Your task to perform on an android device: Open notification settings Image 0: 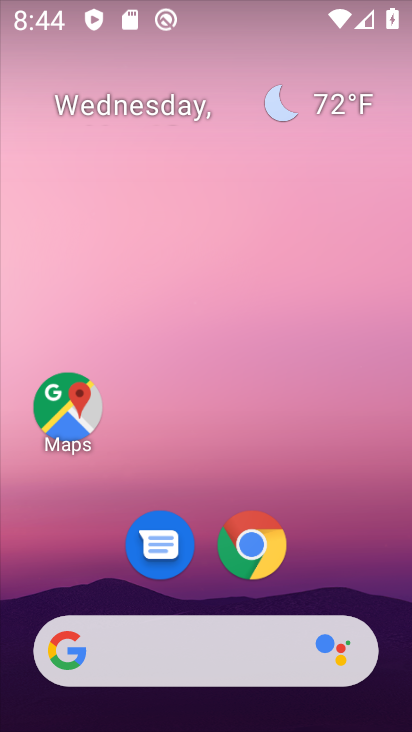
Step 0: drag from (316, 675) to (198, 209)
Your task to perform on an android device: Open notification settings Image 1: 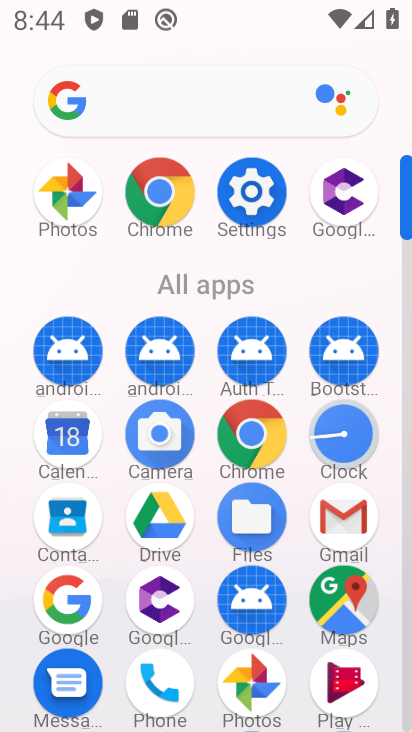
Step 1: click (254, 192)
Your task to perform on an android device: Open notification settings Image 2: 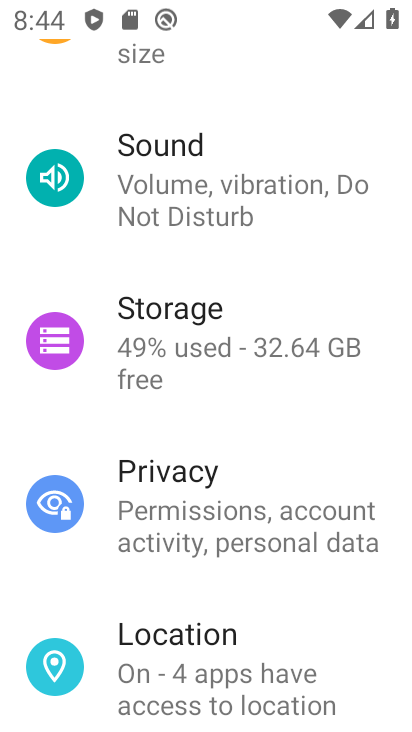
Step 2: click (190, 165)
Your task to perform on an android device: Open notification settings Image 3: 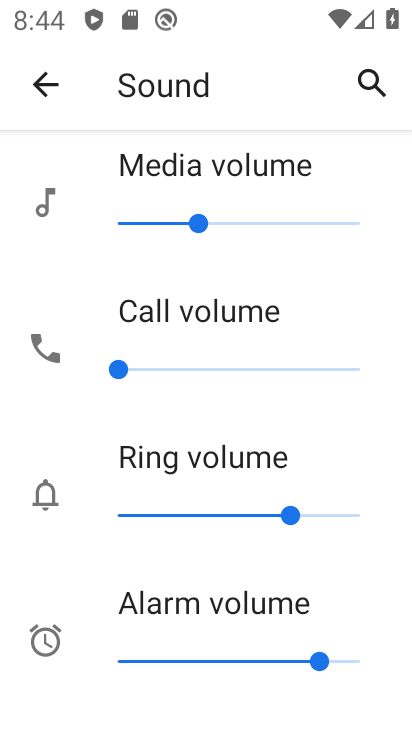
Step 3: click (163, 74)
Your task to perform on an android device: Open notification settings Image 4: 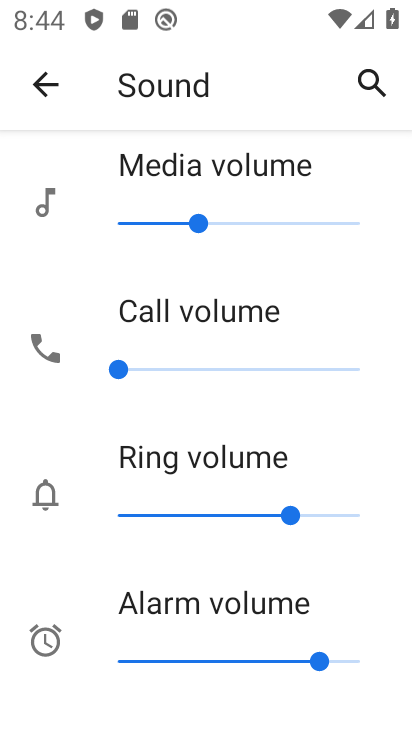
Step 4: click (182, 161)
Your task to perform on an android device: Open notification settings Image 5: 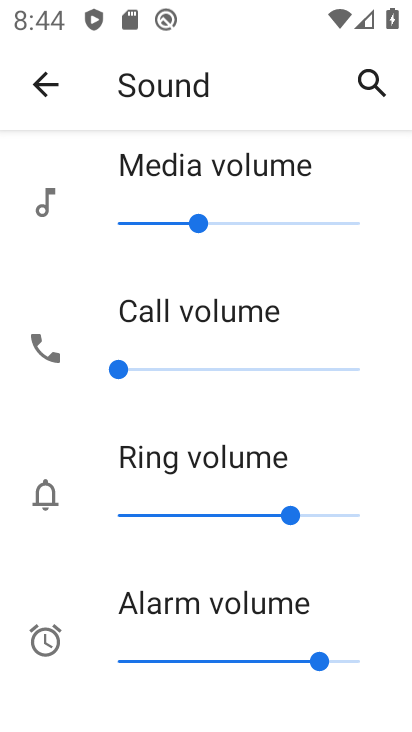
Step 5: click (191, 55)
Your task to perform on an android device: Open notification settings Image 6: 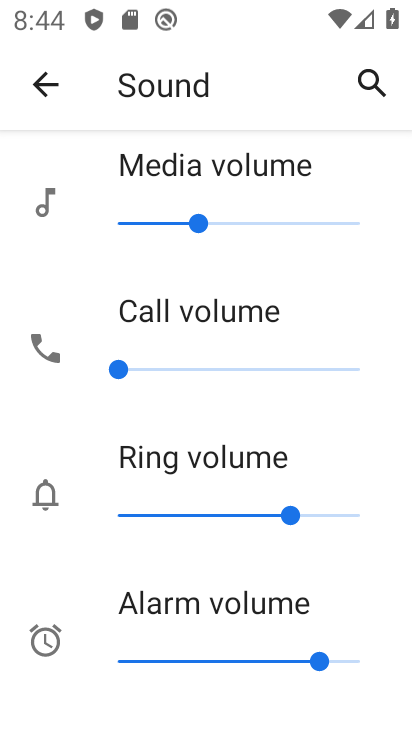
Step 6: click (179, 189)
Your task to perform on an android device: Open notification settings Image 7: 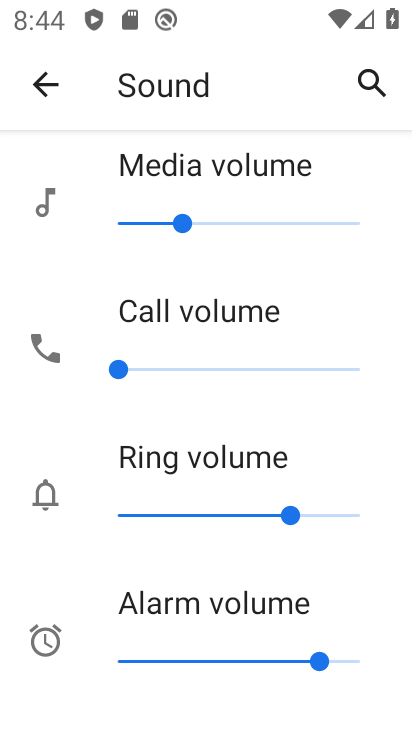
Step 7: click (38, 83)
Your task to perform on an android device: Open notification settings Image 8: 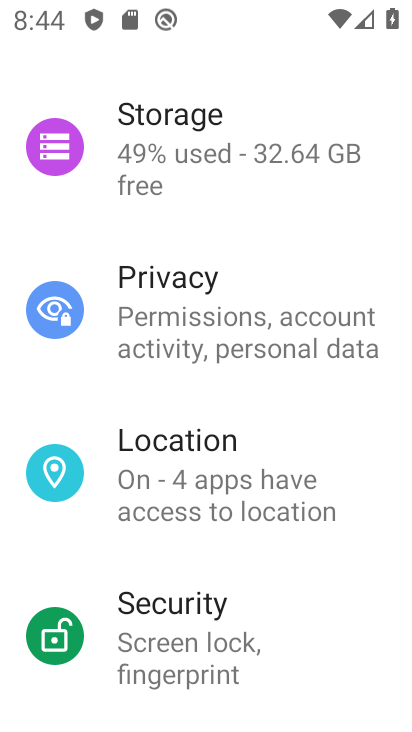
Step 8: click (43, 83)
Your task to perform on an android device: Open notification settings Image 9: 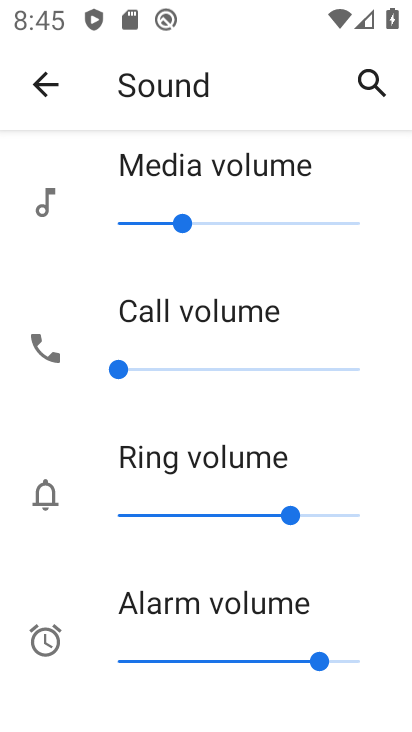
Step 9: click (44, 65)
Your task to perform on an android device: Open notification settings Image 10: 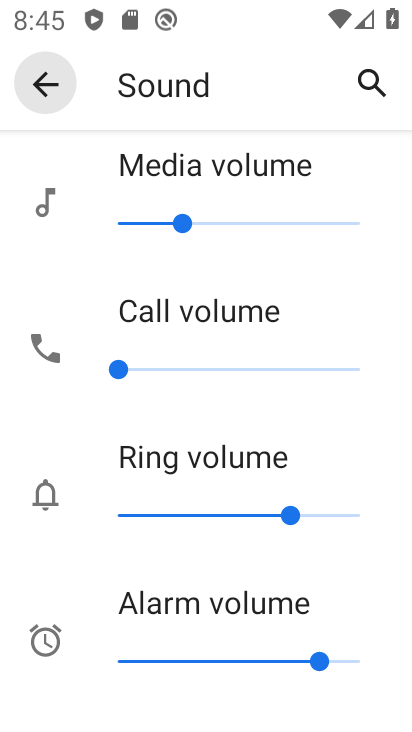
Step 10: click (51, 82)
Your task to perform on an android device: Open notification settings Image 11: 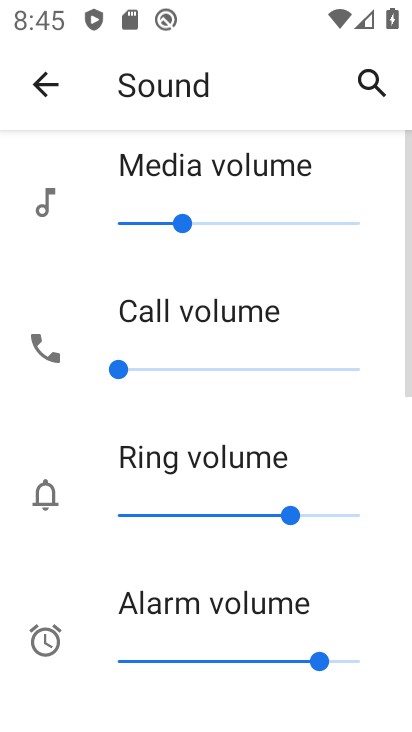
Step 11: click (41, 94)
Your task to perform on an android device: Open notification settings Image 12: 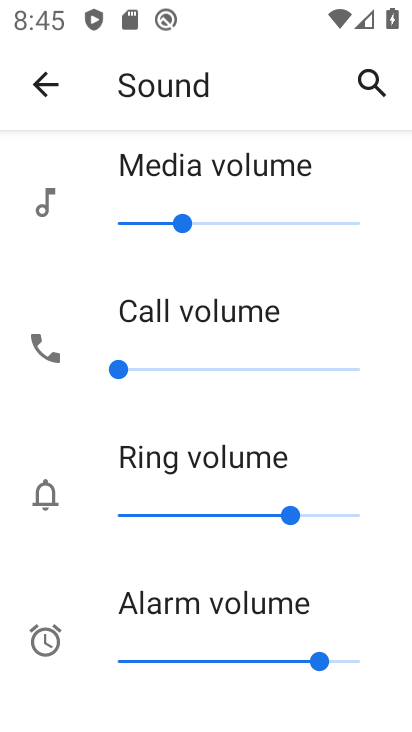
Step 12: click (42, 93)
Your task to perform on an android device: Open notification settings Image 13: 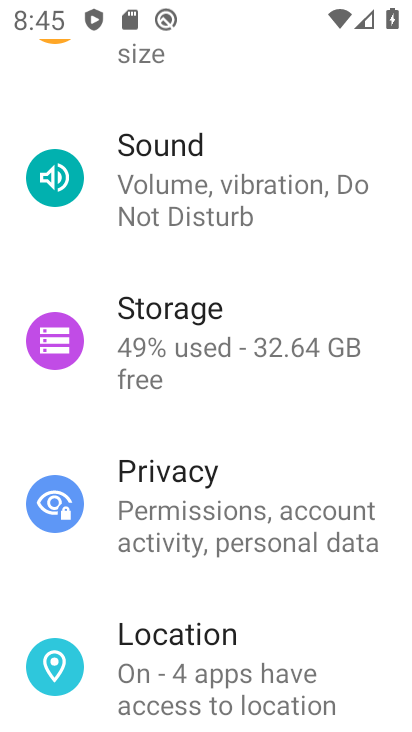
Step 13: drag from (221, 288) to (293, 521)
Your task to perform on an android device: Open notification settings Image 14: 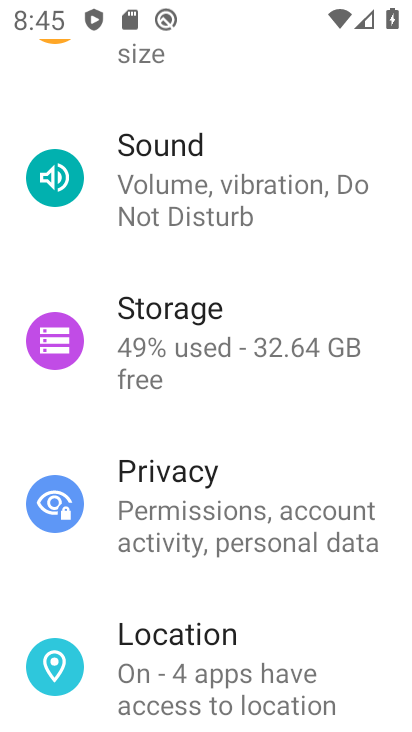
Step 14: click (249, 685)
Your task to perform on an android device: Open notification settings Image 15: 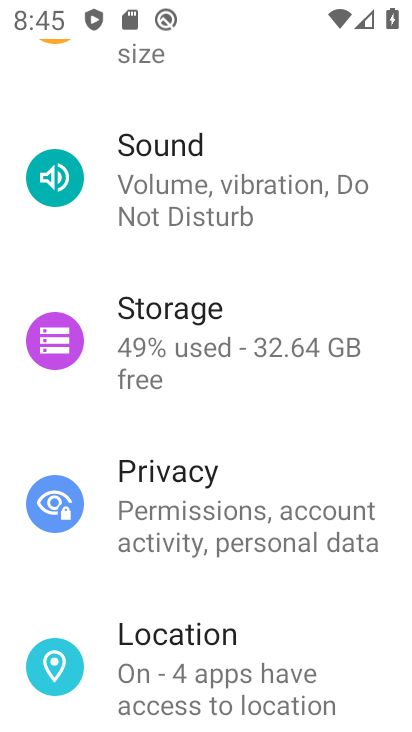
Step 15: drag from (174, 301) to (220, 593)
Your task to perform on an android device: Open notification settings Image 16: 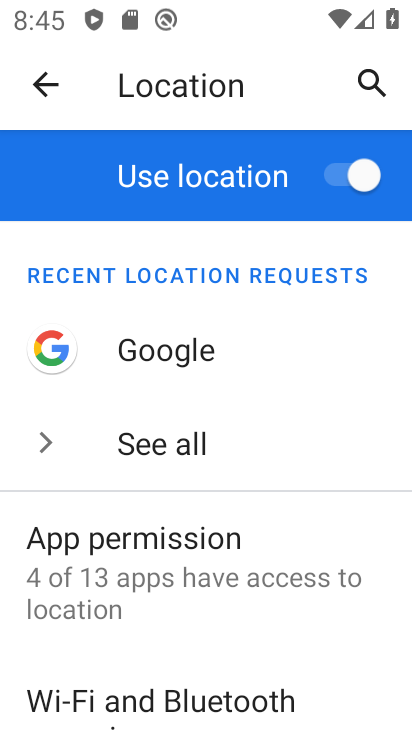
Step 16: drag from (194, 515) to (191, 102)
Your task to perform on an android device: Open notification settings Image 17: 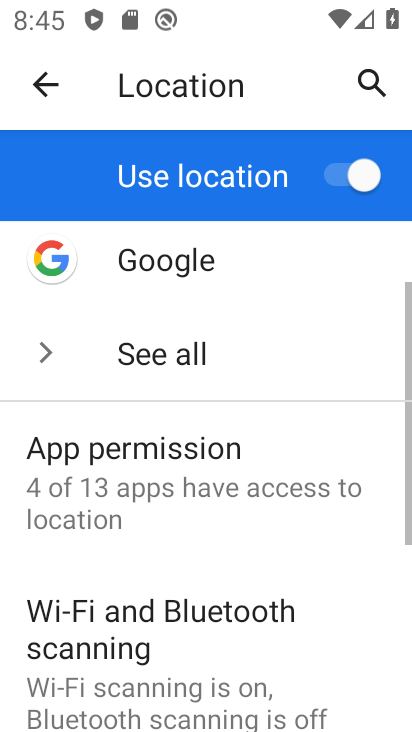
Step 17: drag from (155, 447) to (123, 235)
Your task to perform on an android device: Open notification settings Image 18: 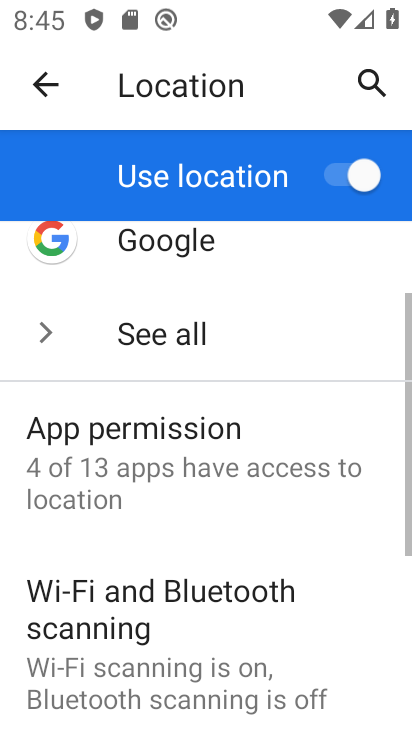
Step 18: drag from (158, 440) to (108, 142)
Your task to perform on an android device: Open notification settings Image 19: 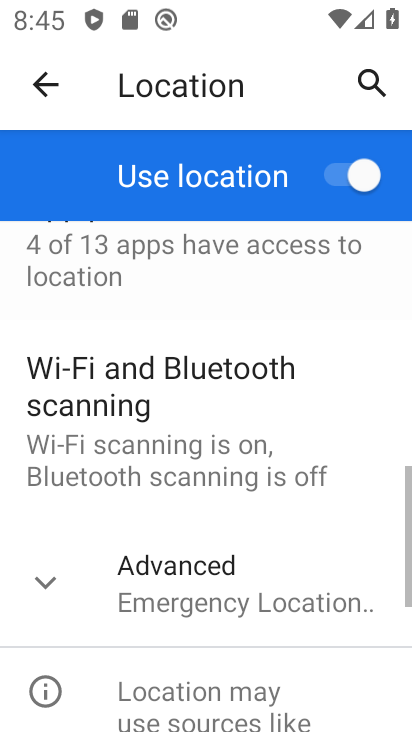
Step 19: drag from (147, 496) to (61, 124)
Your task to perform on an android device: Open notification settings Image 20: 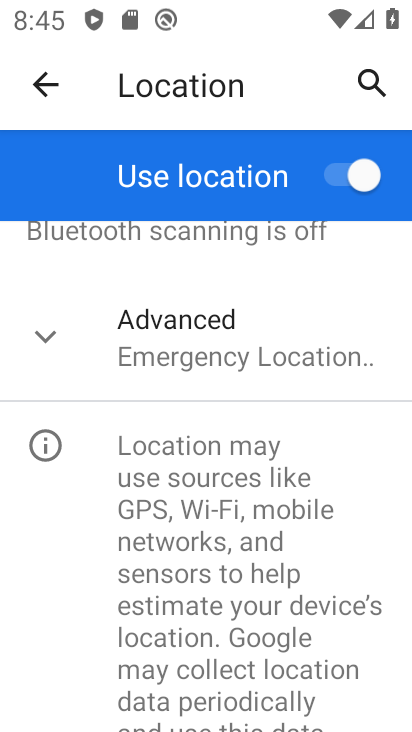
Step 20: drag from (154, 300) to (176, 485)
Your task to perform on an android device: Open notification settings Image 21: 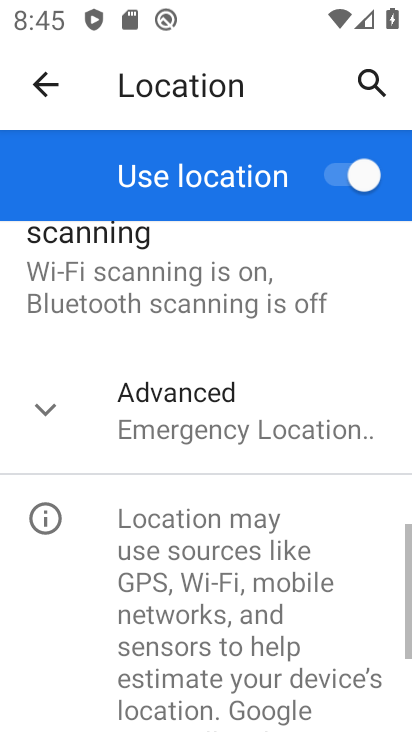
Step 21: click (40, 81)
Your task to perform on an android device: Open notification settings Image 22: 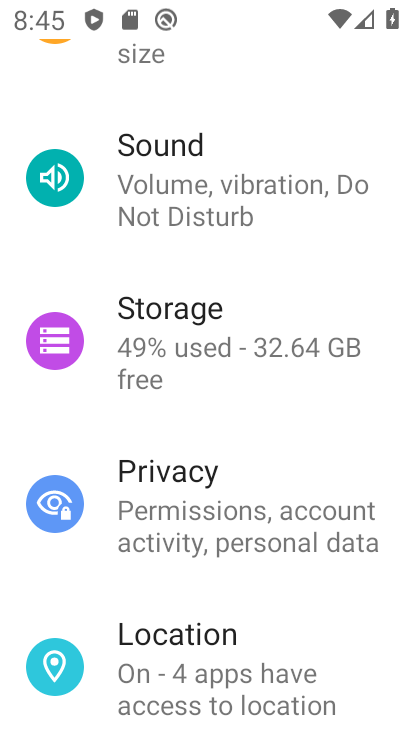
Step 22: drag from (141, 174) to (218, 717)
Your task to perform on an android device: Open notification settings Image 23: 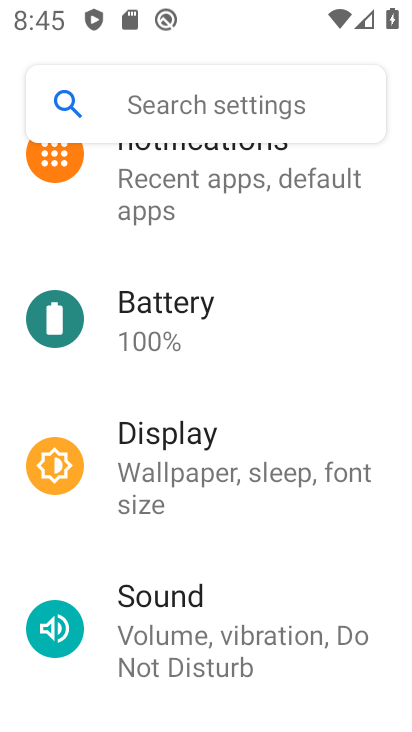
Step 23: drag from (140, 164) to (209, 389)
Your task to perform on an android device: Open notification settings Image 24: 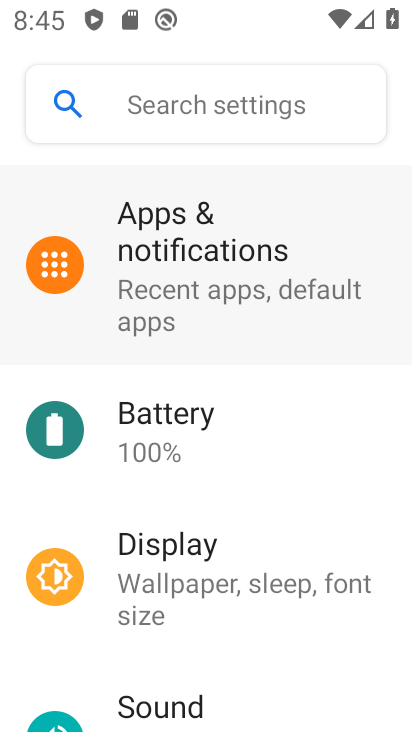
Step 24: drag from (147, 191) to (203, 450)
Your task to perform on an android device: Open notification settings Image 25: 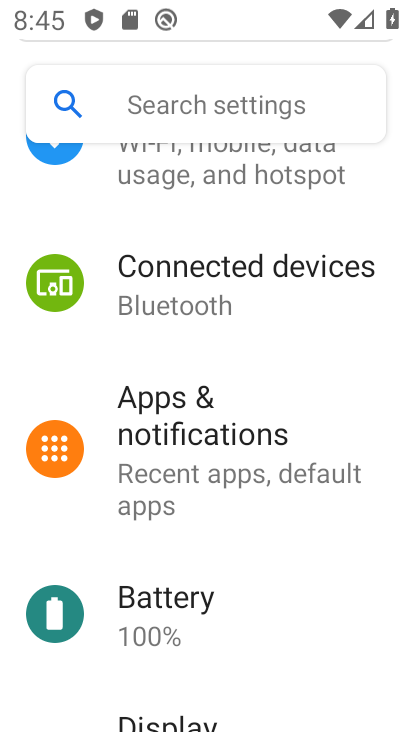
Step 25: drag from (180, 272) to (211, 655)
Your task to perform on an android device: Open notification settings Image 26: 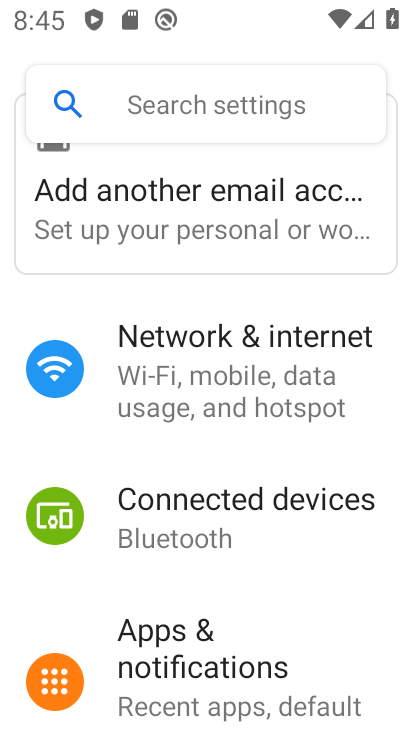
Step 26: drag from (144, 227) to (205, 636)
Your task to perform on an android device: Open notification settings Image 27: 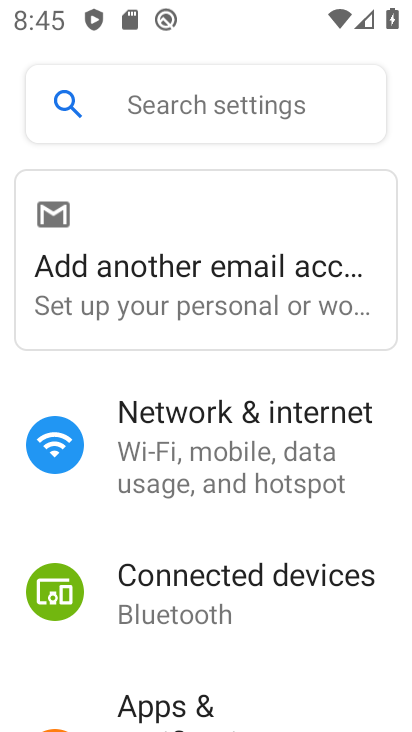
Step 27: click (182, 648)
Your task to perform on an android device: Open notification settings Image 28: 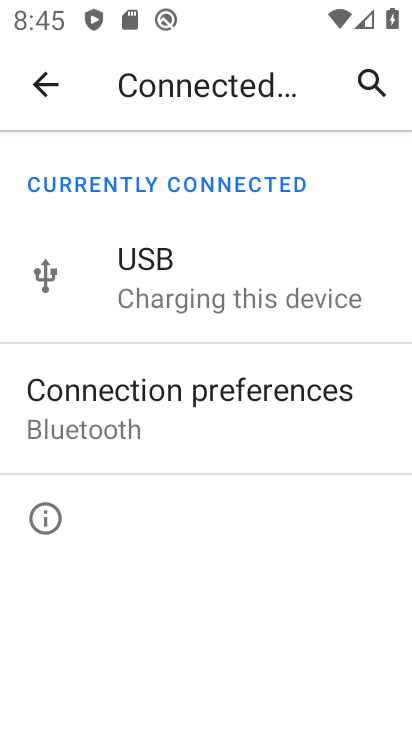
Step 28: click (30, 82)
Your task to perform on an android device: Open notification settings Image 29: 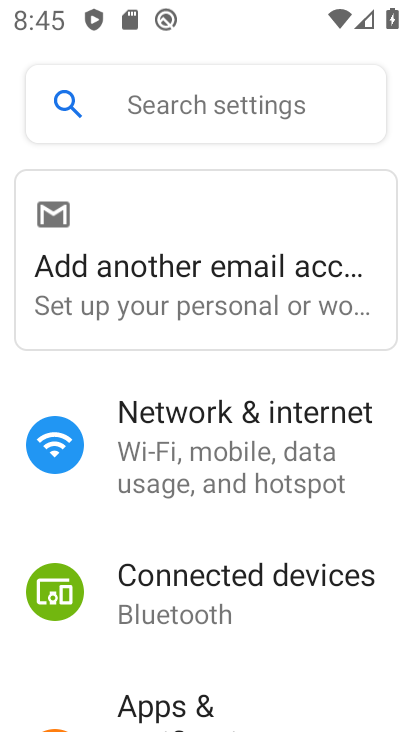
Step 29: drag from (217, 568) to (184, 341)
Your task to perform on an android device: Open notification settings Image 30: 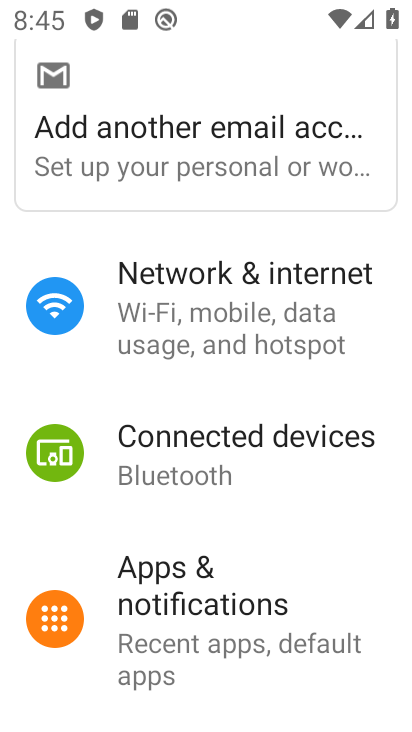
Step 30: click (166, 607)
Your task to perform on an android device: Open notification settings Image 31: 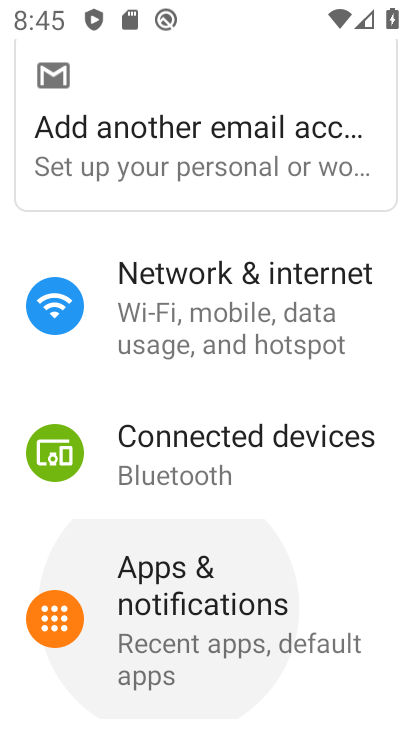
Step 31: click (168, 607)
Your task to perform on an android device: Open notification settings Image 32: 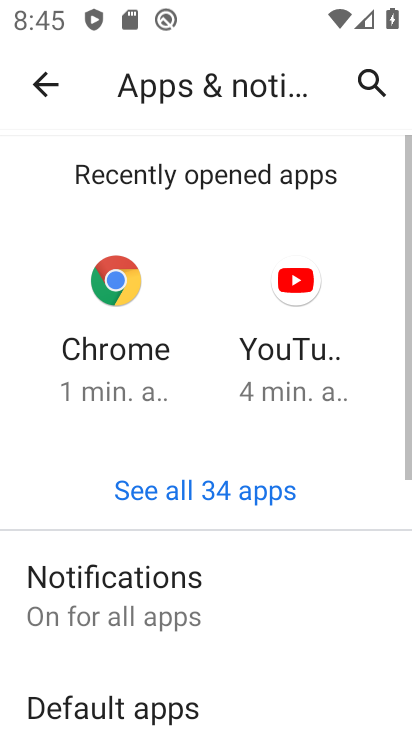
Step 32: task complete